Your task to perform on an android device: open a new tab in the chrome app Image 0: 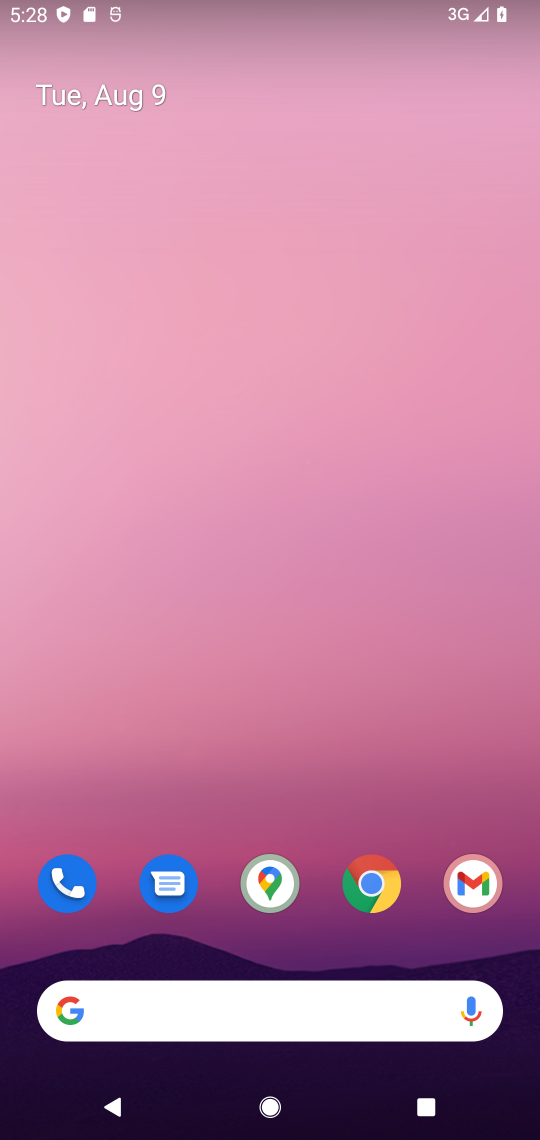
Step 0: click (391, 886)
Your task to perform on an android device: open a new tab in the chrome app Image 1: 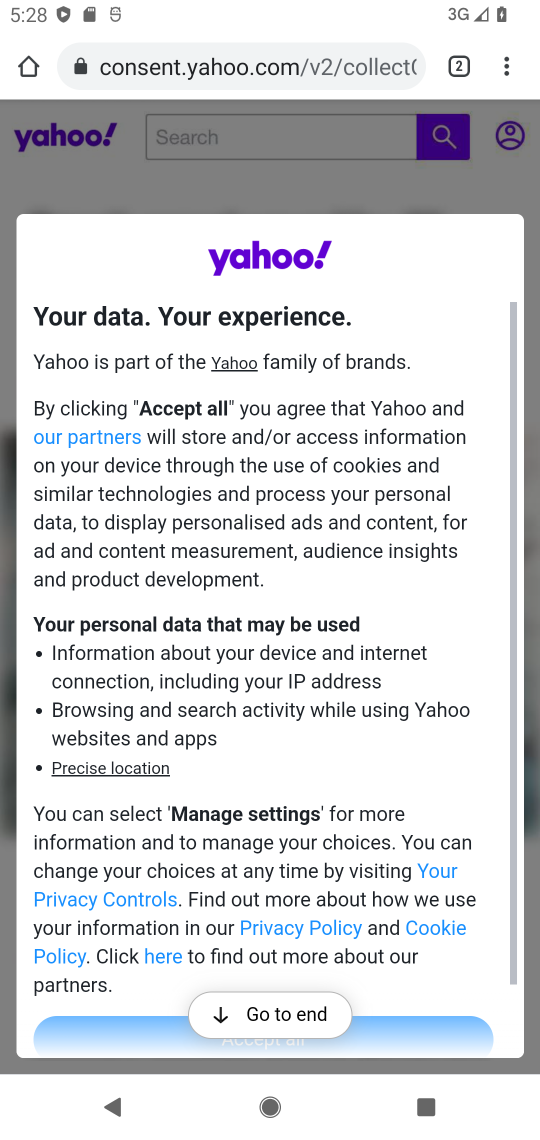
Step 1: click (462, 62)
Your task to perform on an android device: open a new tab in the chrome app Image 2: 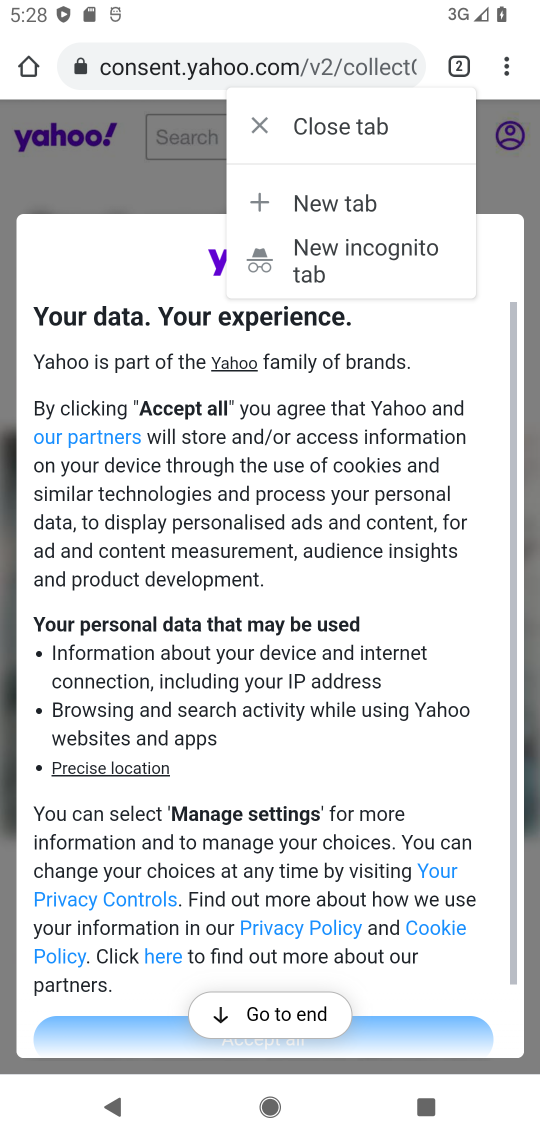
Step 2: click (451, 54)
Your task to perform on an android device: open a new tab in the chrome app Image 3: 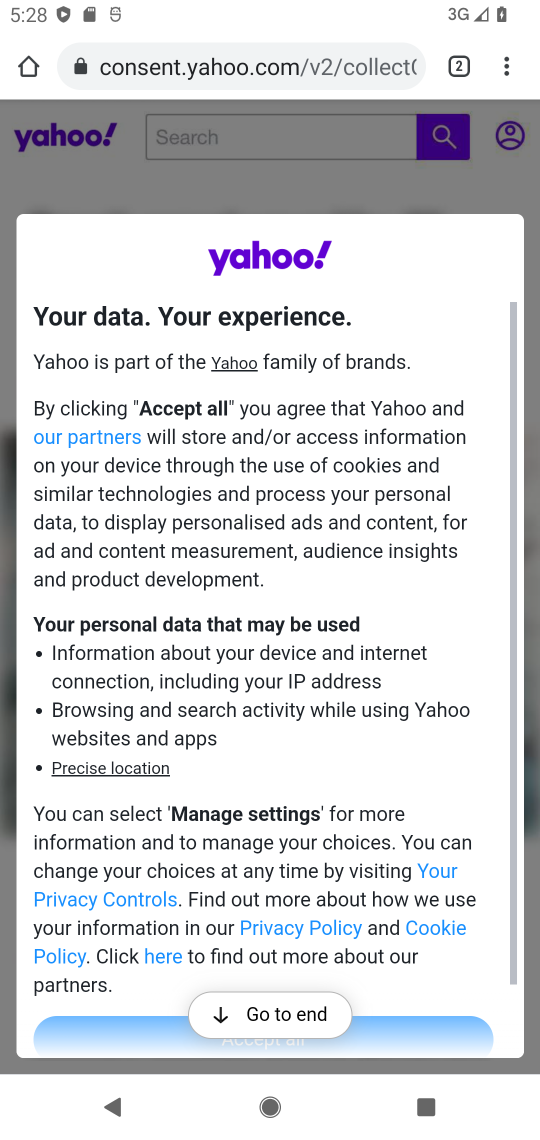
Step 3: click (454, 62)
Your task to perform on an android device: open a new tab in the chrome app Image 4: 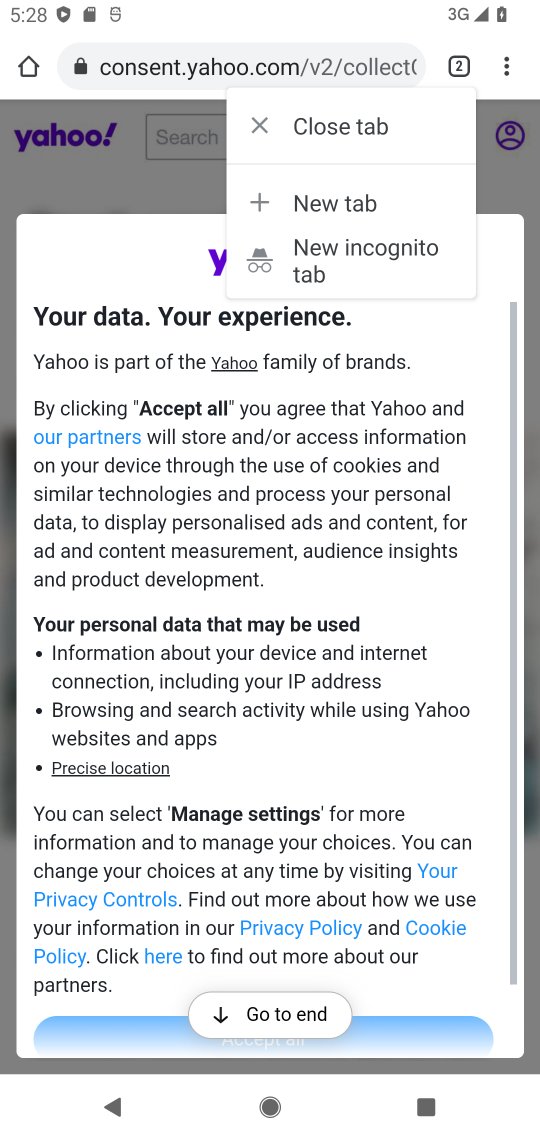
Step 4: click (346, 190)
Your task to perform on an android device: open a new tab in the chrome app Image 5: 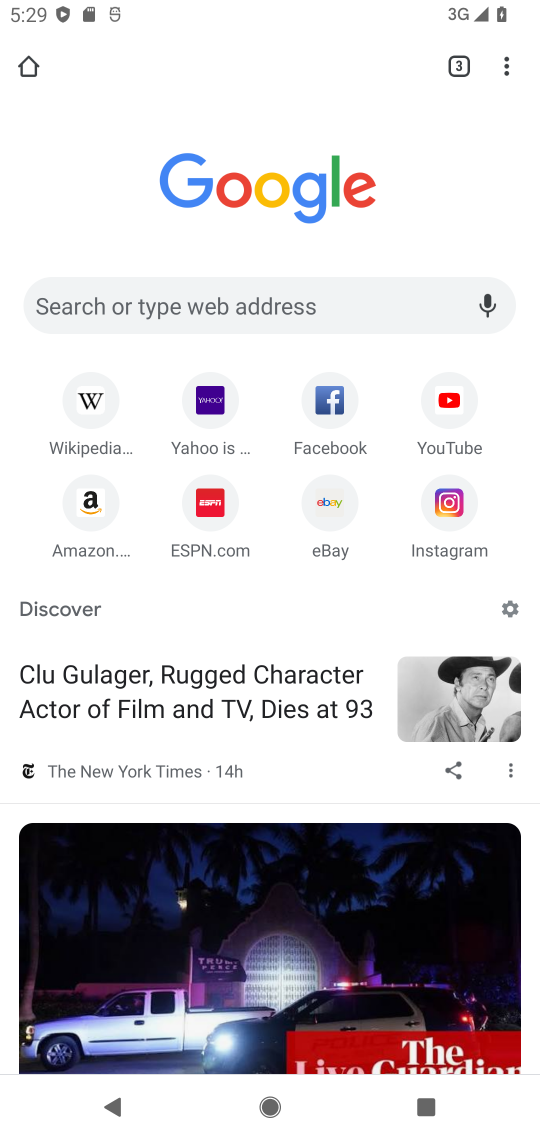
Step 5: task complete